Your task to perform on an android device: Open Google Image 0: 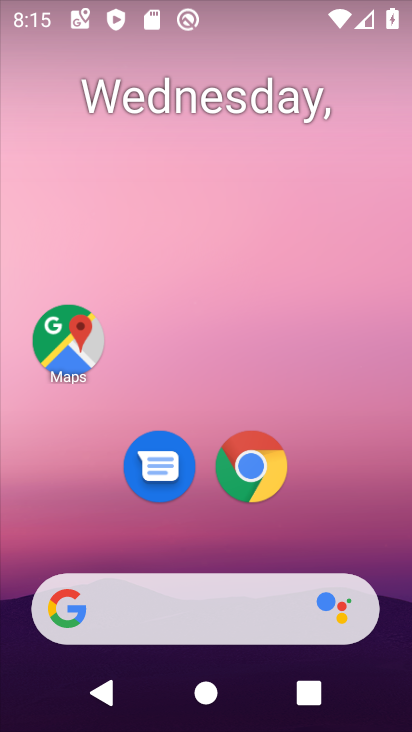
Step 0: drag from (323, 520) to (402, 74)
Your task to perform on an android device: Open Google Image 1: 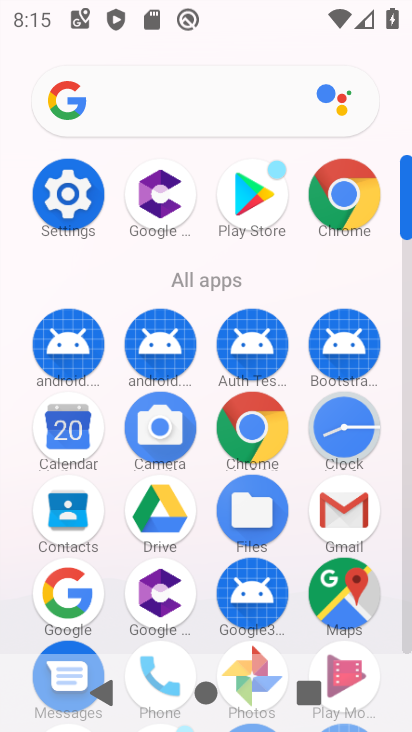
Step 1: click (41, 600)
Your task to perform on an android device: Open Google Image 2: 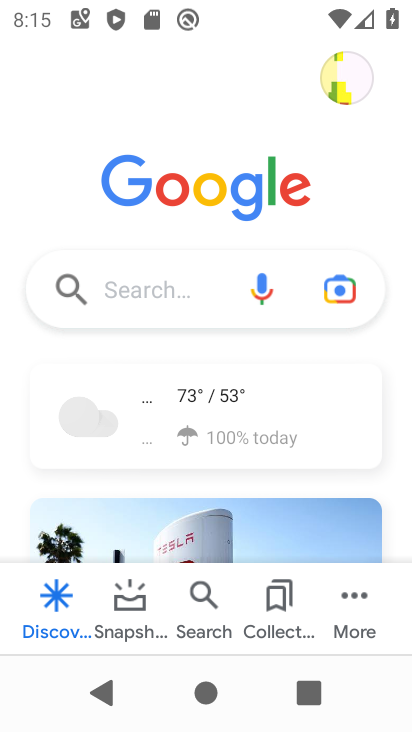
Step 2: task complete